Your task to perform on an android device: Go to Google Image 0: 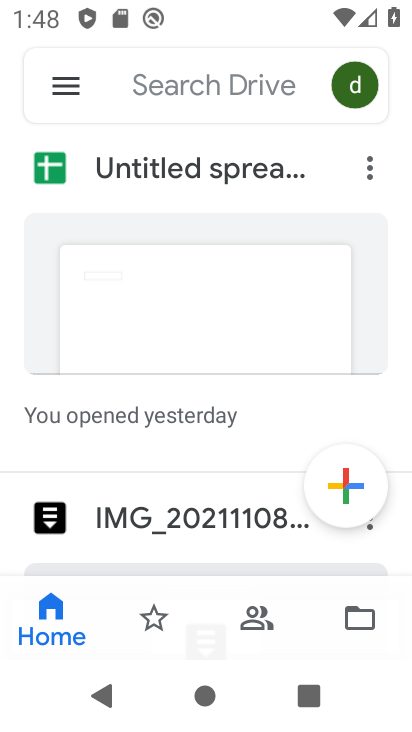
Step 0: press home button
Your task to perform on an android device: Go to Google Image 1: 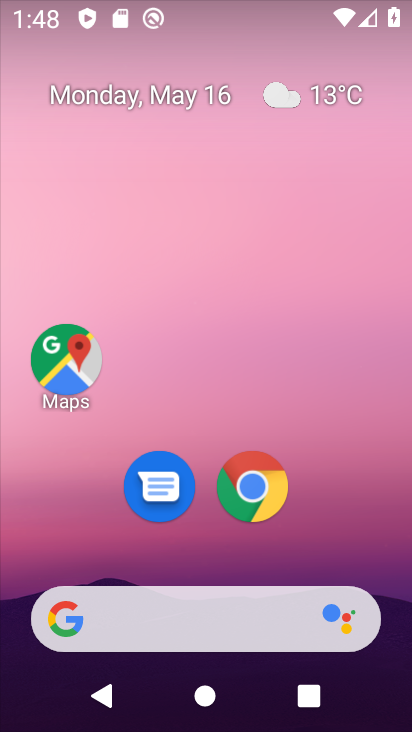
Step 1: drag from (349, 515) to (3, 121)
Your task to perform on an android device: Go to Google Image 2: 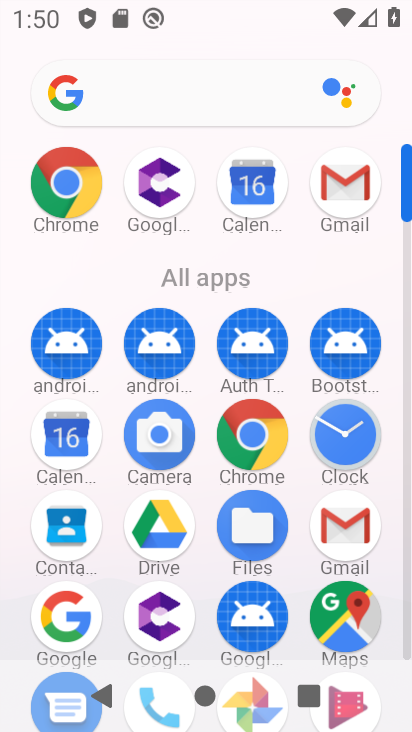
Step 2: drag from (214, 154) to (260, 11)
Your task to perform on an android device: Go to Google Image 3: 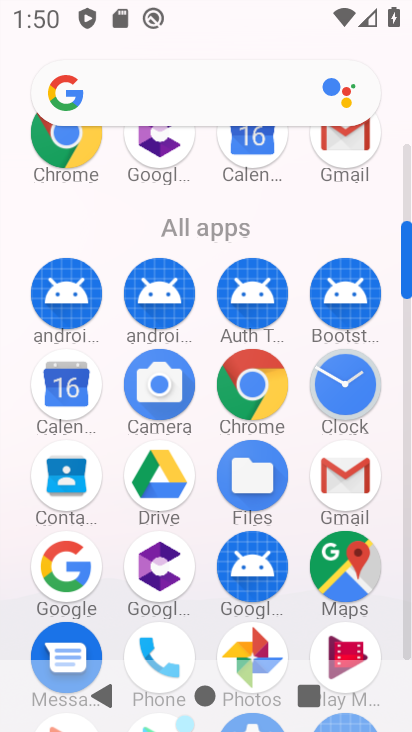
Step 3: click (66, 566)
Your task to perform on an android device: Go to Google Image 4: 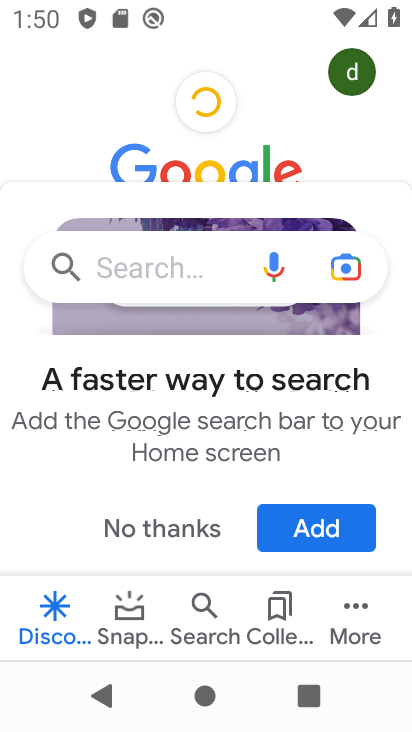
Step 4: task complete